Your task to perform on an android device: install app "Pandora - Music & Podcasts" Image 0: 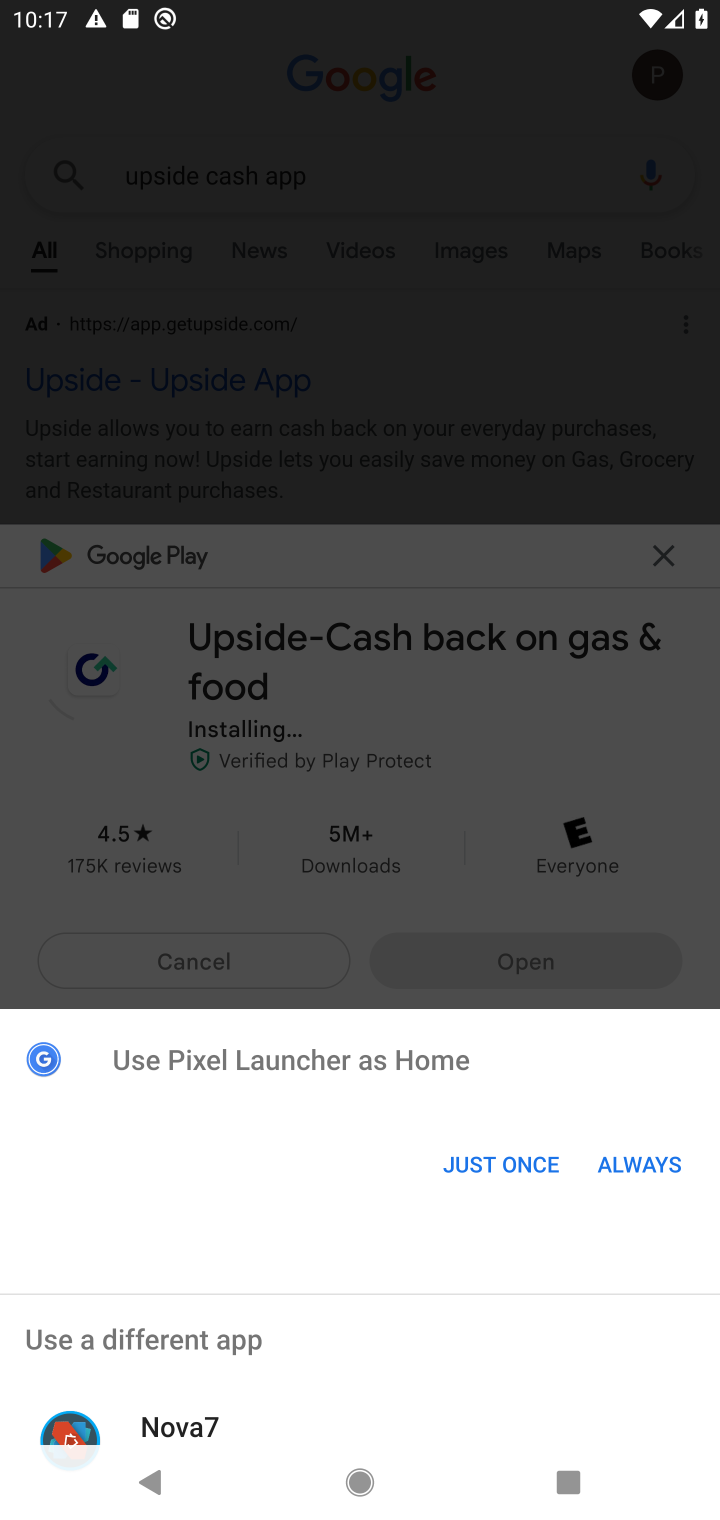
Step 0: click (533, 1189)
Your task to perform on an android device: install app "Pandora - Music & Podcasts" Image 1: 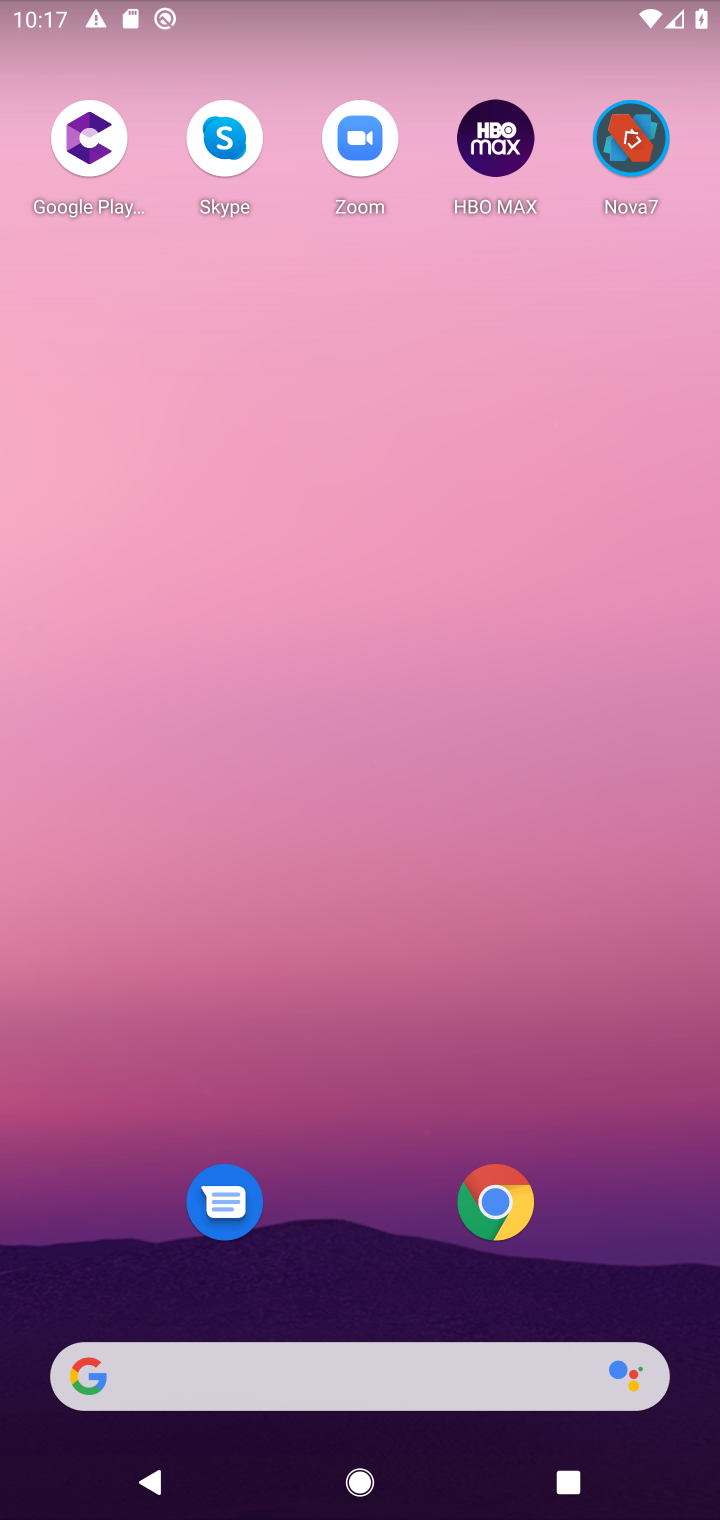
Step 1: click (384, 1376)
Your task to perform on an android device: install app "Pandora - Music & Podcasts" Image 2: 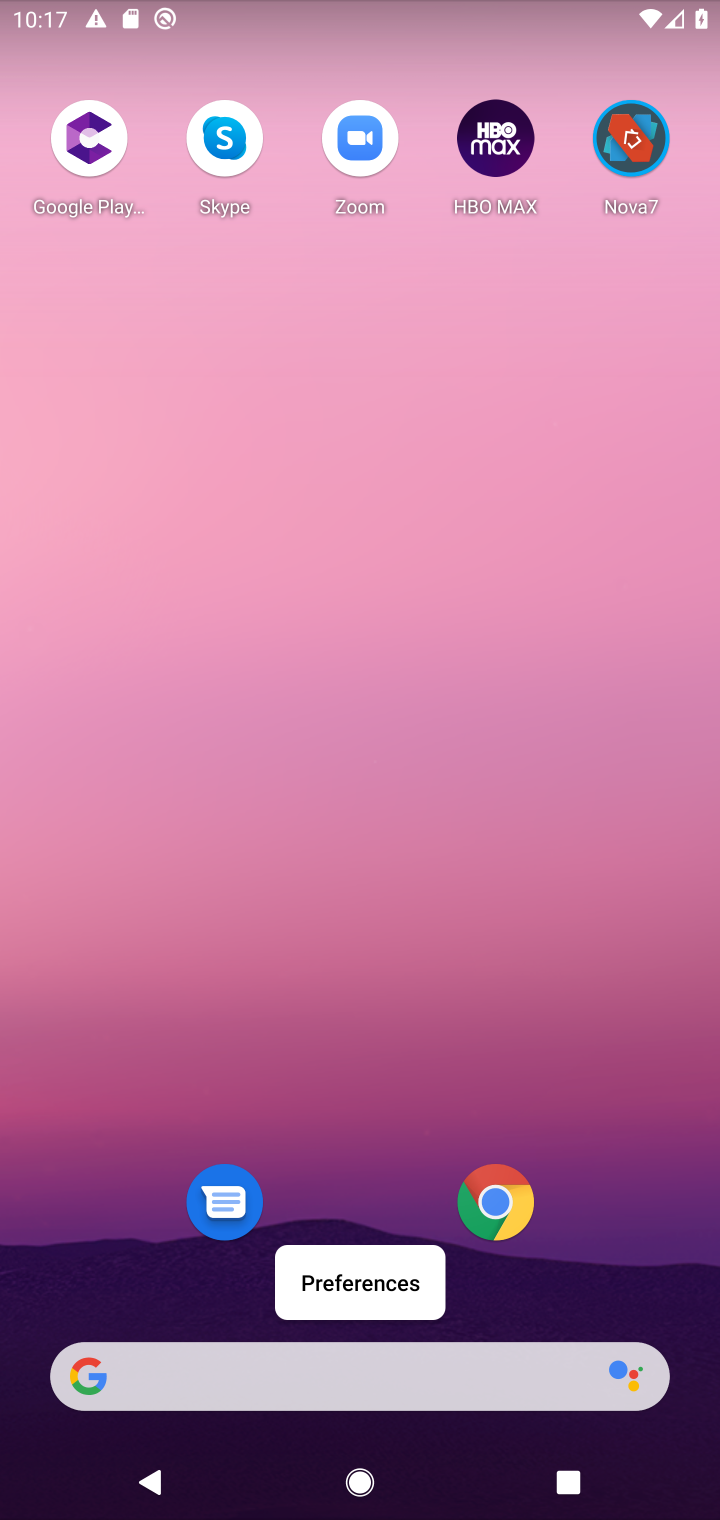
Step 2: type "pandora"
Your task to perform on an android device: install app "Pandora - Music & Podcasts" Image 3: 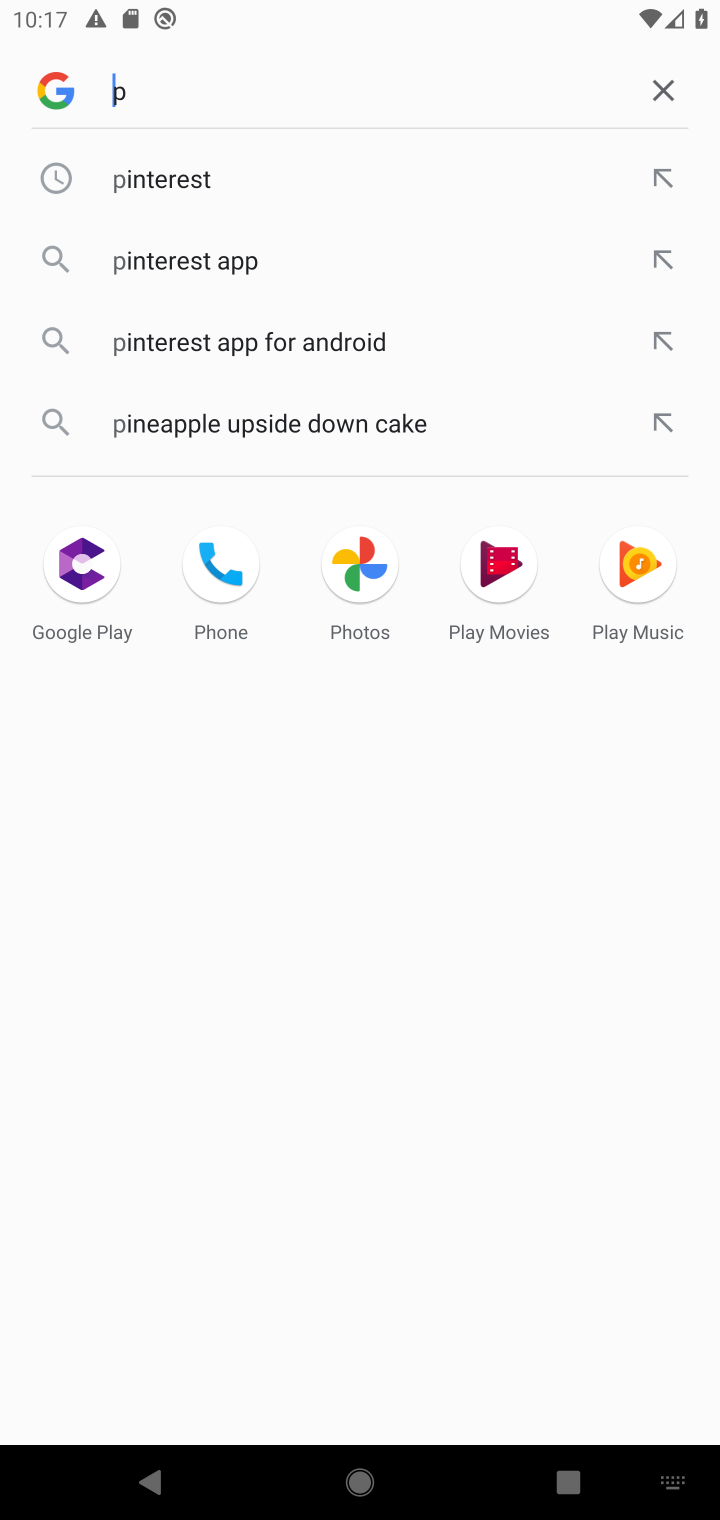
Step 3: click (188, 96)
Your task to perform on an android device: install app "Pandora - Music & Podcasts" Image 4: 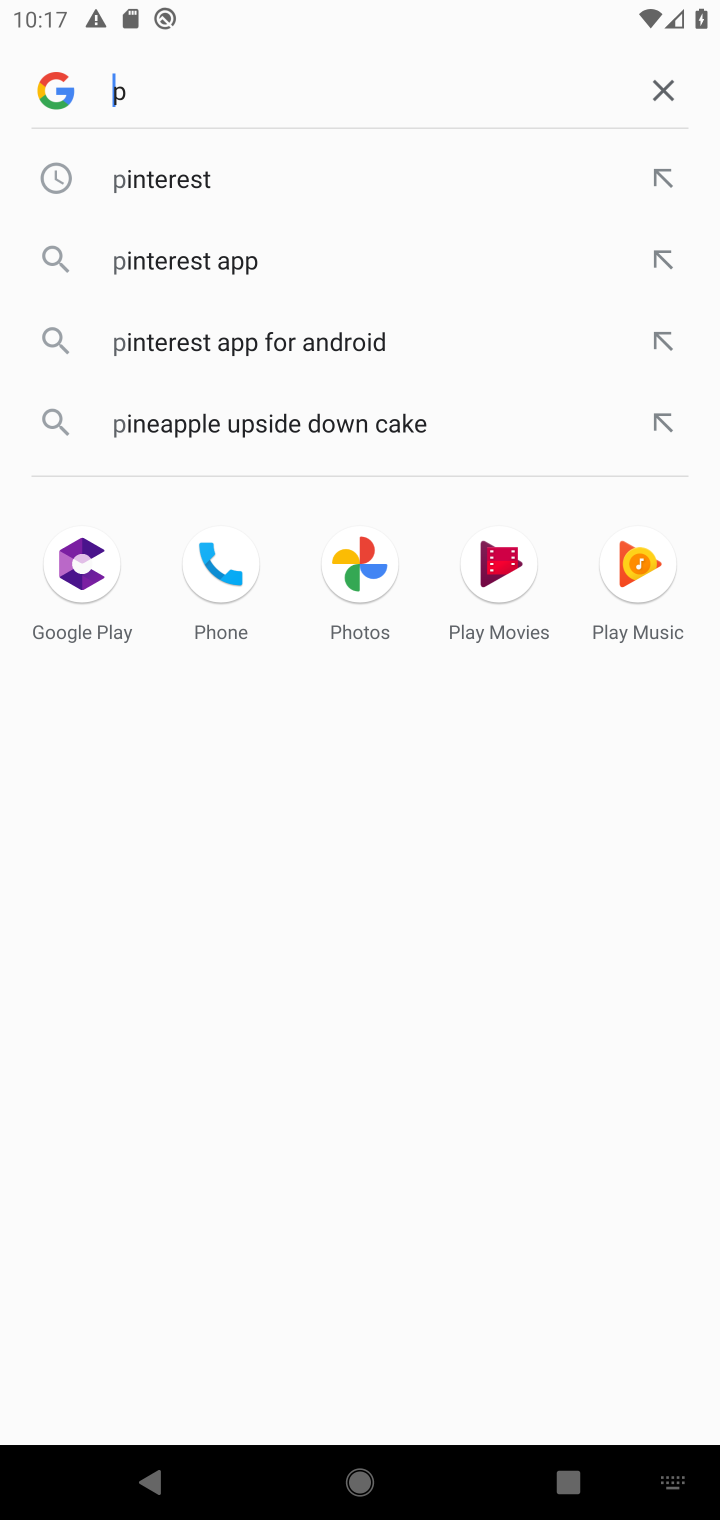
Step 4: click (188, 96)
Your task to perform on an android device: install app "Pandora - Music & Podcasts" Image 5: 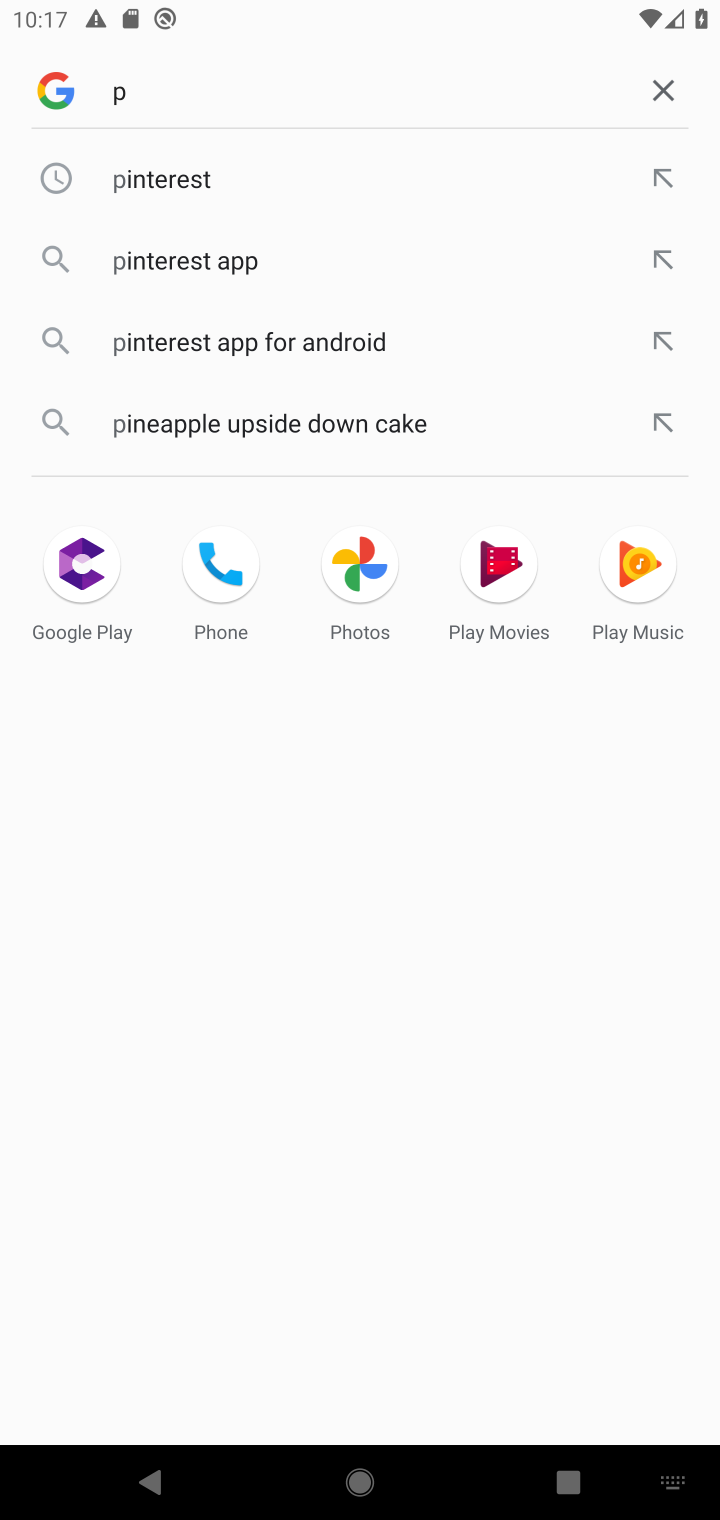
Step 5: click (662, 86)
Your task to perform on an android device: install app "Pandora - Music & Podcasts" Image 6: 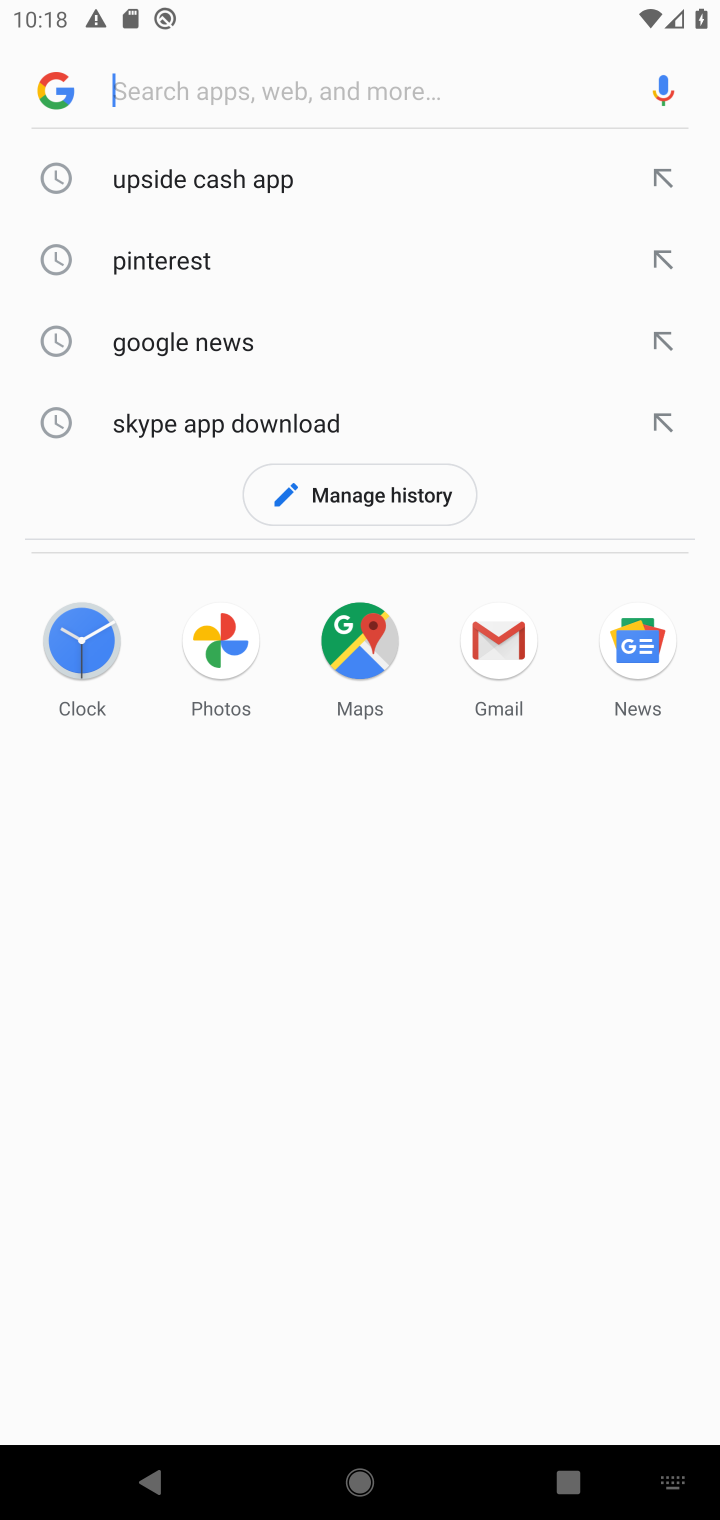
Step 6: type "pandora"
Your task to perform on an android device: install app "Pandora - Music & Podcasts" Image 7: 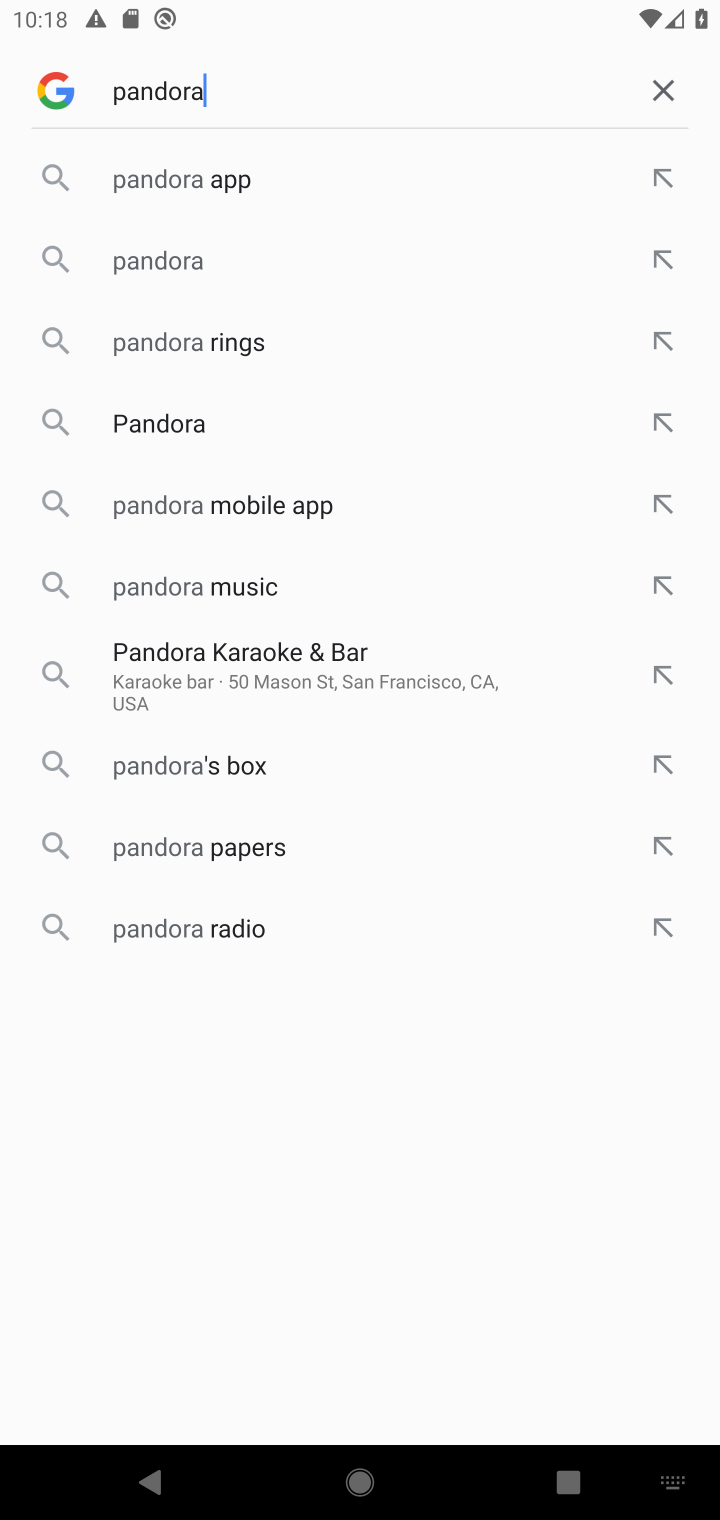
Step 7: click (234, 172)
Your task to perform on an android device: install app "Pandora - Music & Podcasts" Image 8: 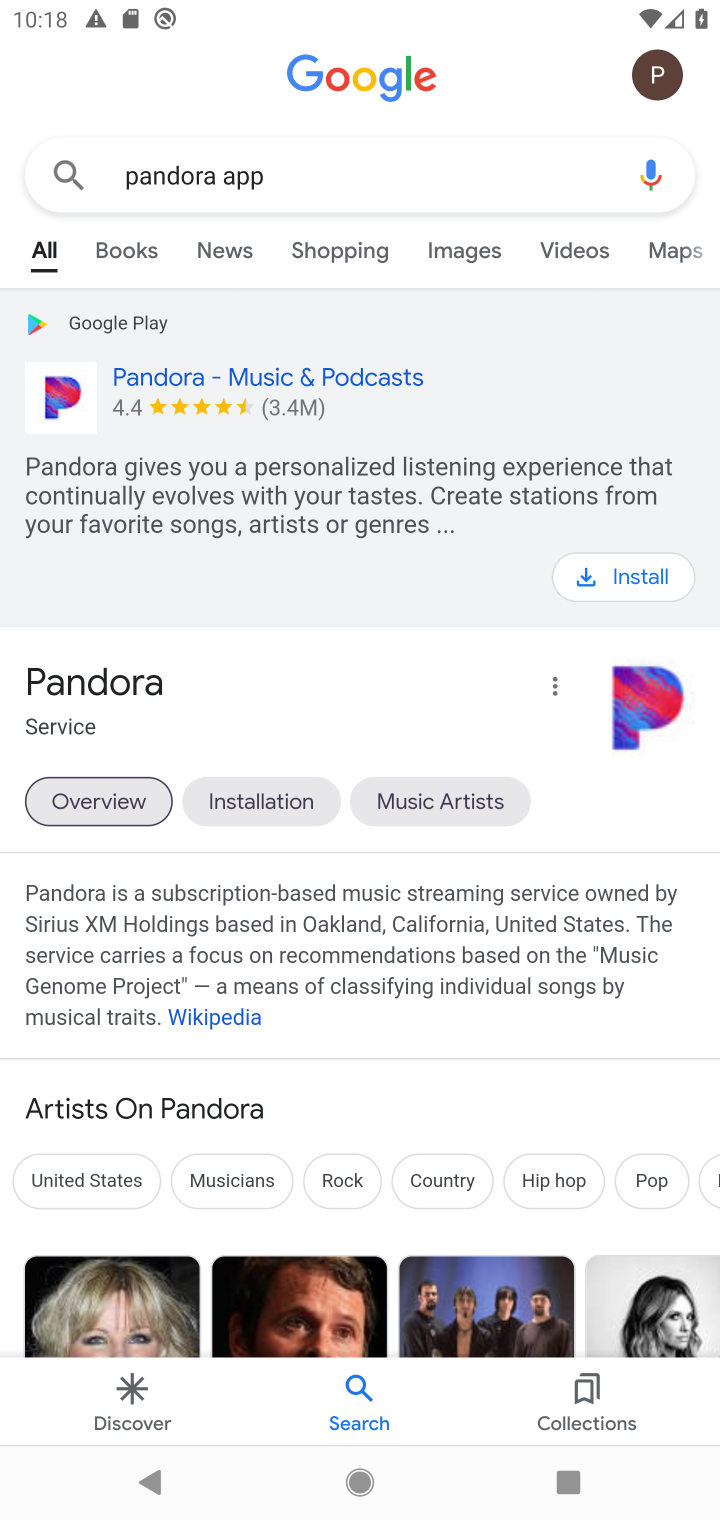
Step 8: click (576, 574)
Your task to perform on an android device: install app "Pandora - Music & Podcasts" Image 9: 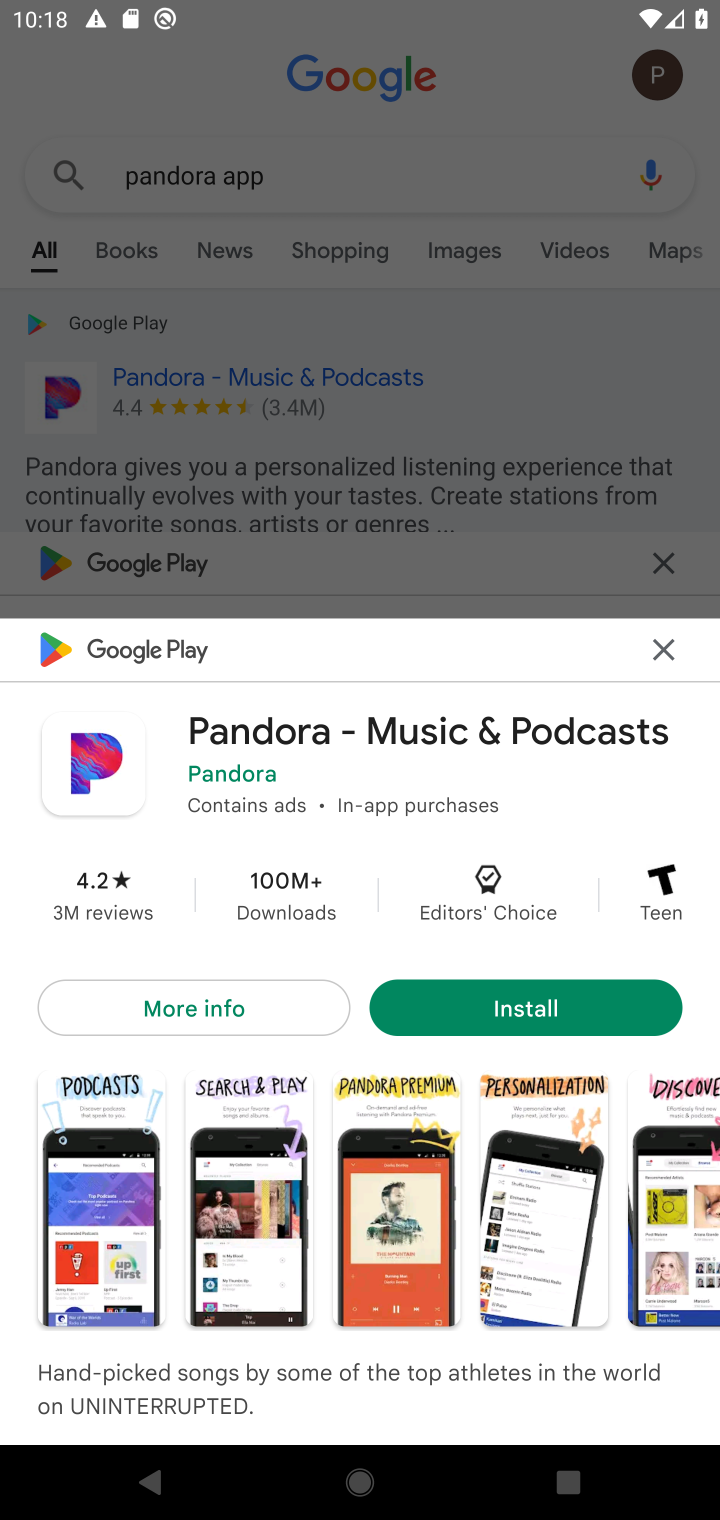
Step 9: click (560, 1006)
Your task to perform on an android device: install app "Pandora - Music & Podcasts" Image 10: 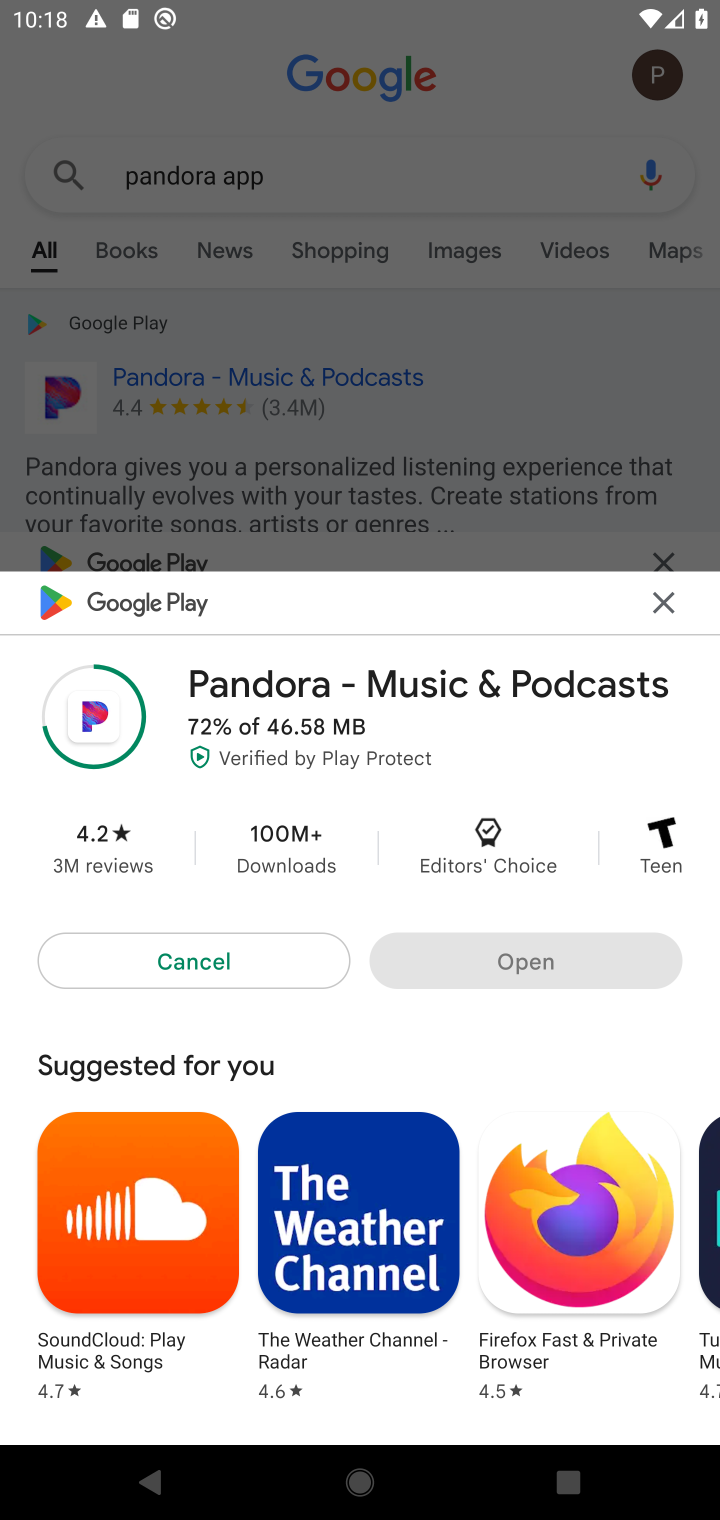
Step 10: task complete